Your task to perform on an android device: turn off data saver in the chrome app Image 0: 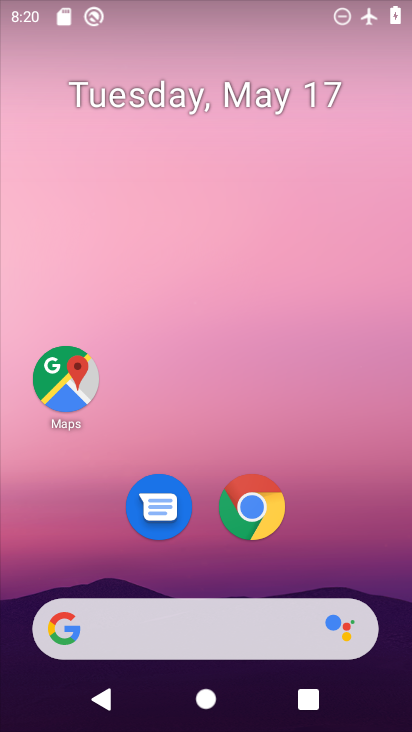
Step 0: click (328, 546)
Your task to perform on an android device: turn off data saver in the chrome app Image 1: 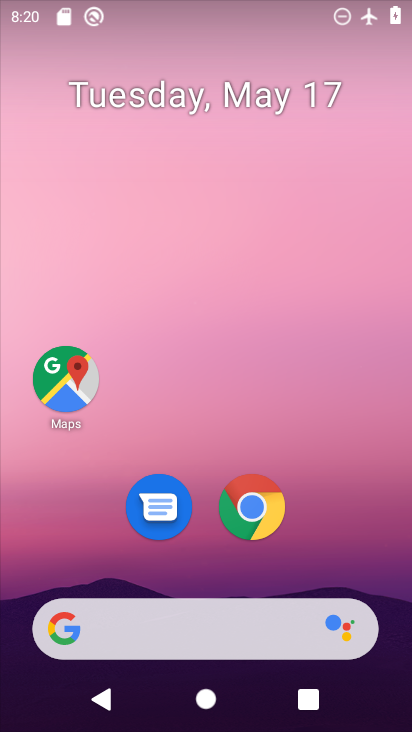
Step 1: click (245, 512)
Your task to perform on an android device: turn off data saver in the chrome app Image 2: 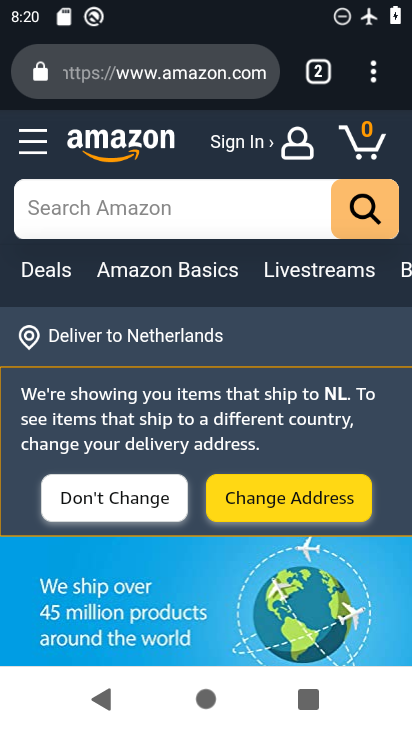
Step 2: click (376, 72)
Your task to perform on an android device: turn off data saver in the chrome app Image 3: 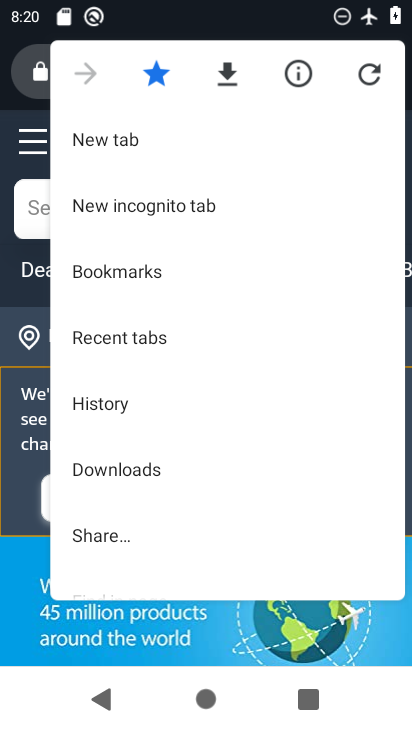
Step 3: drag from (227, 503) to (196, 127)
Your task to perform on an android device: turn off data saver in the chrome app Image 4: 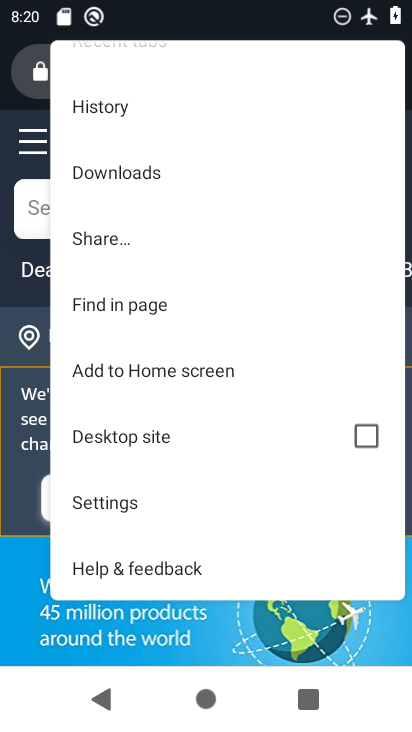
Step 4: click (126, 506)
Your task to perform on an android device: turn off data saver in the chrome app Image 5: 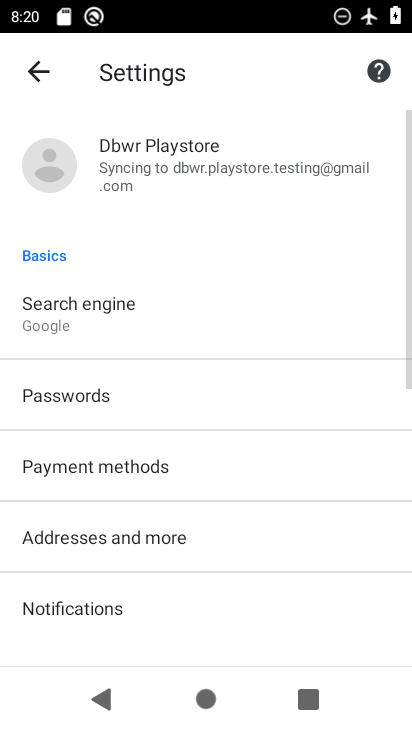
Step 5: drag from (198, 573) to (194, 230)
Your task to perform on an android device: turn off data saver in the chrome app Image 6: 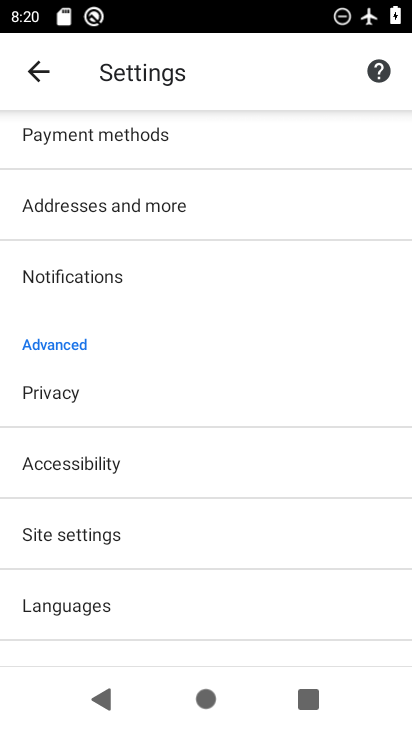
Step 6: drag from (173, 536) to (180, 270)
Your task to perform on an android device: turn off data saver in the chrome app Image 7: 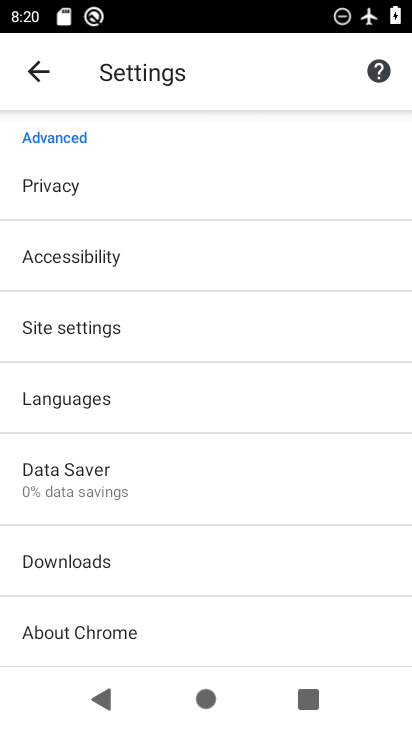
Step 7: click (60, 468)
Your task to perform on an android device: turn off data saver in the chrome app Image 8: 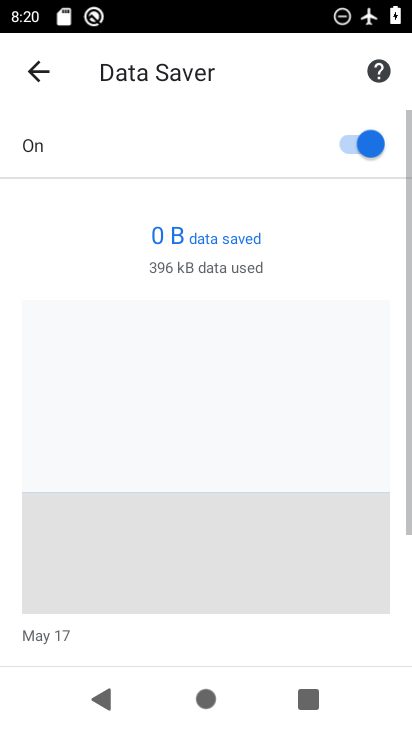
Step 8: click (373, 156)
Your task to perform on an android device: turn off data saver in the chrome app Image 9: 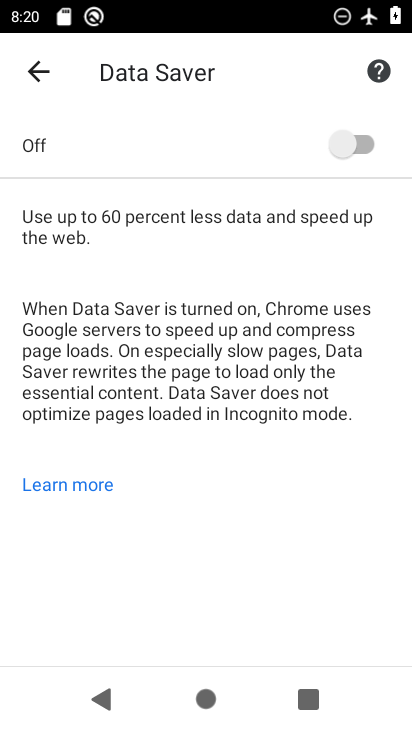
Step 9: task complete